Your task to perform on an android device: turn off wifi Image 0: 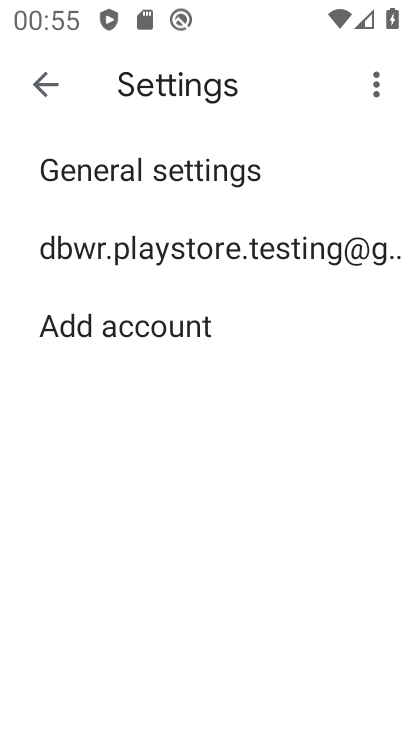
Step 0: press home button
Your task to perform on an android device: turn off wifi Image 1: 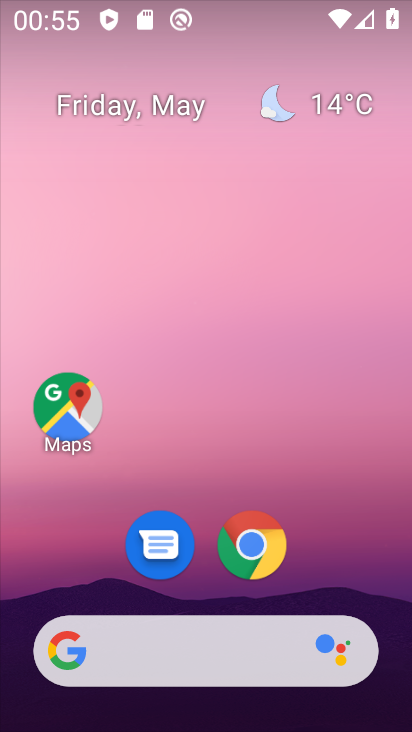
Step 1: drag from (294, 587) to (276, 209)
Your task to perform on an android device: turn off wifi Image 2: 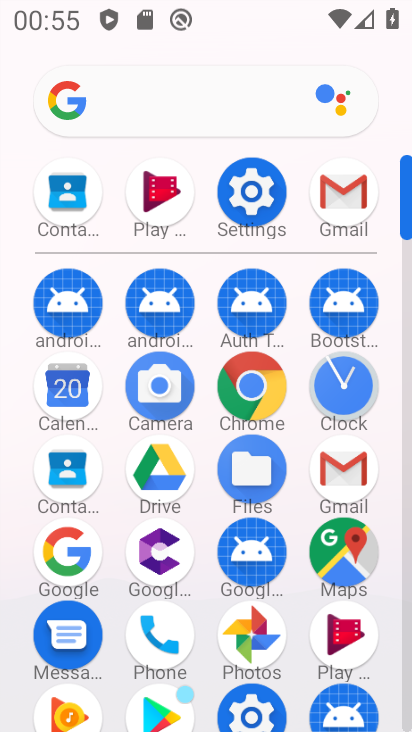
Step 2: click (251, 193)
Your task to perform on an android device: turn off wifi Image 3: 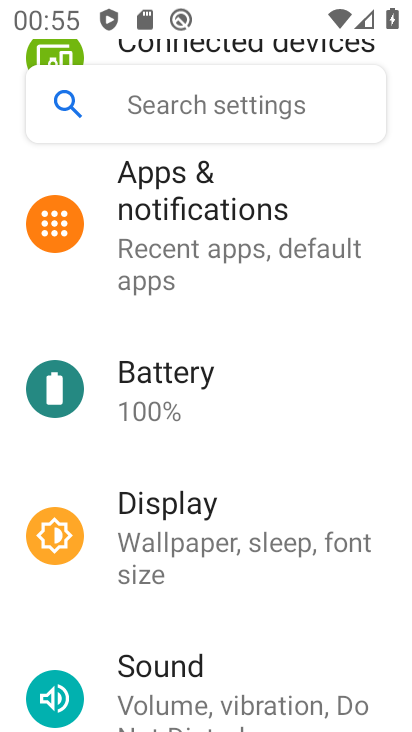
Step 3: drag from (243, 218) to (212, 604)
Your task to perform on an android device: turn off wifi Image 4: 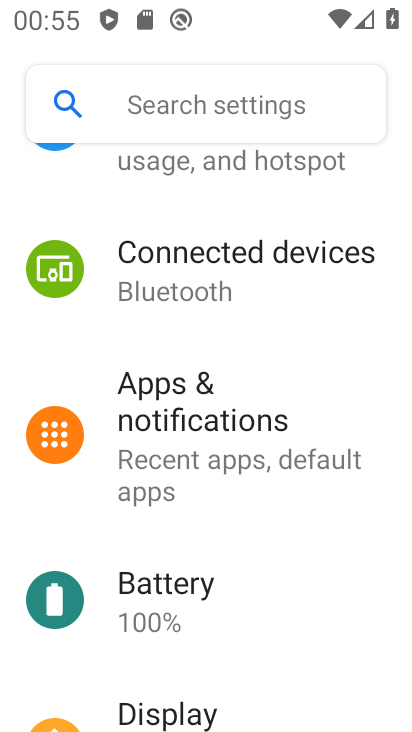
Step 4: drag from (243, 264) to (197, 662)
Your task to perform on an android device: turn off wifi Image 5: 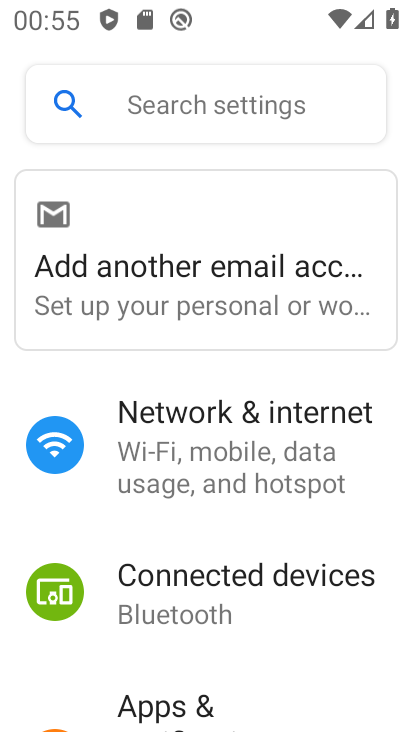
Step 5: click (182, 426)
Your task to perform on an android device: turn off wifi Image 6: 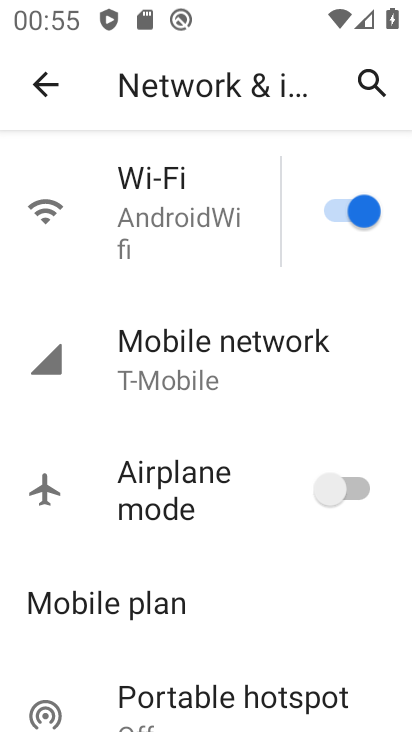
Step 6: click (159, 210)
Your task to perform on an android device: turn off wifi Image 7: 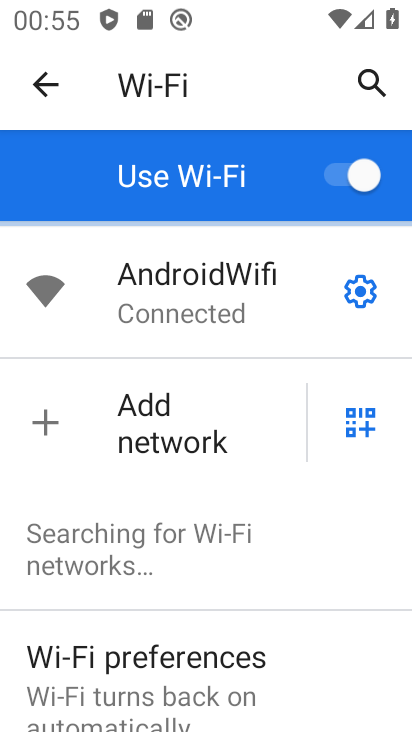
Step 7: click (334, 189)
Your task to perform on an android device: turn off wifi Image 8: 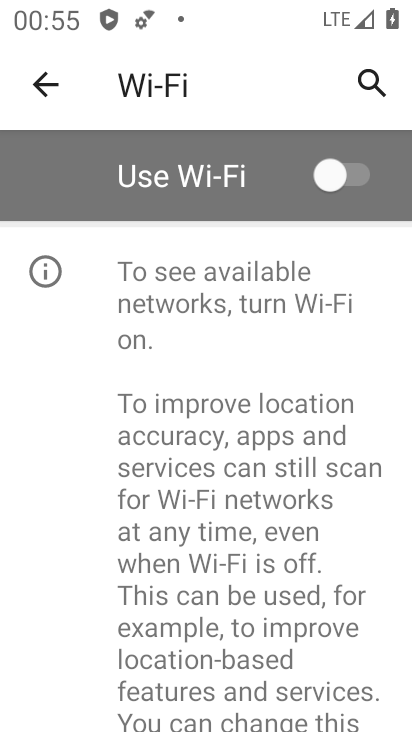
Step 8: task complete